Your task to perform on an android device: Open network settings Image 0: 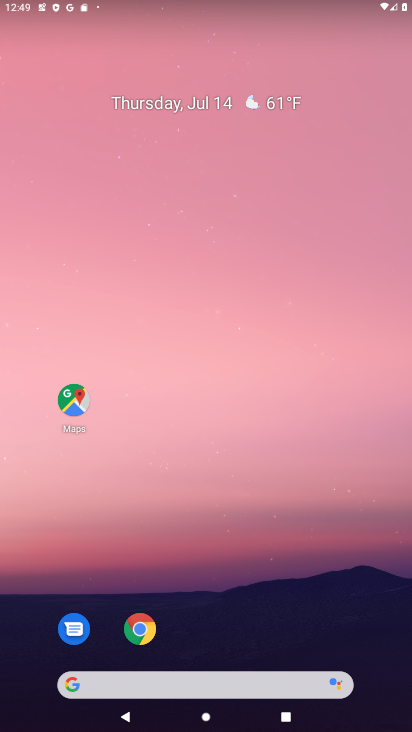
Step 0: click (208, 683)
Your task to perform on an android device: Open network settings Image 1: 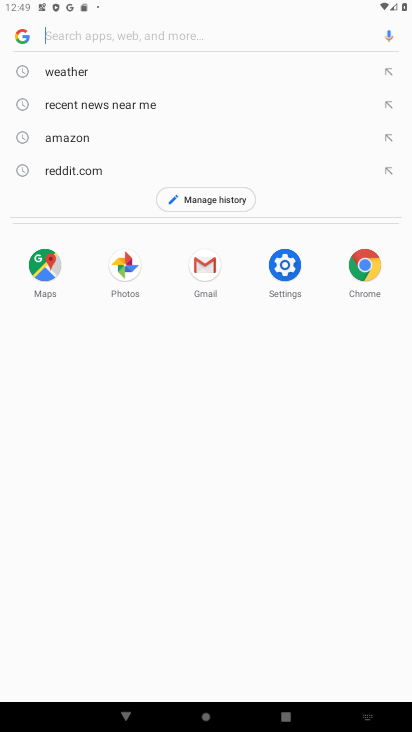
Step 1: drag from (184, 8) to (211, 383)
Your task to perform on an android device: Open network settings Image 2: 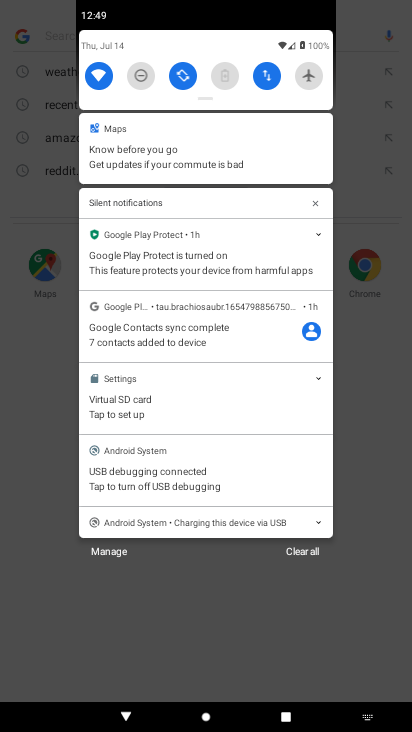
Step 2: click (272, 74)
Your task to perform on an android device: Open network settings Image 3: 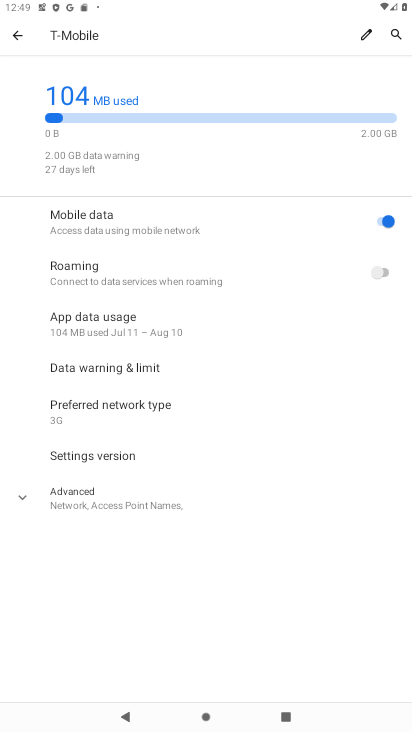
Step 3: task complete